Your task to perform on an android device: Search for the new Jordans on Nike.com Image 0: 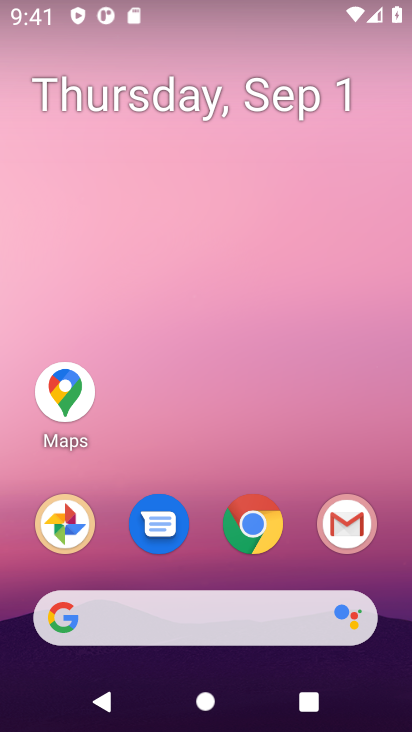
Step 0: drag from (388, 573) to (384, 84)
Your task to perform on an android device: Search for the new Jordans on Nike.com Image 1: 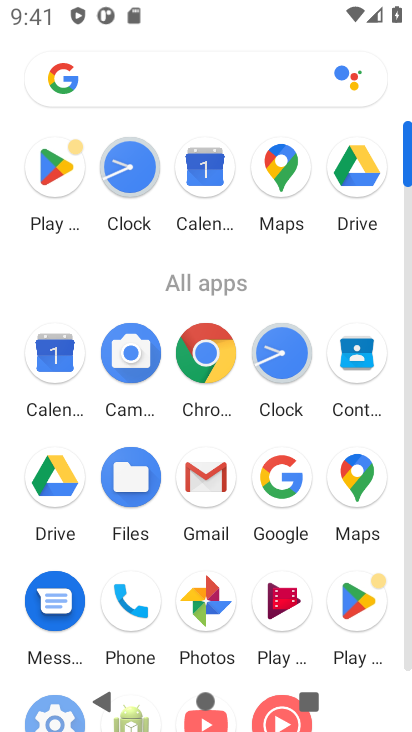
Step 1: click (213, 351)
Your task to perform on an android device: Search for the new Jordans on Nike.com Image 2: 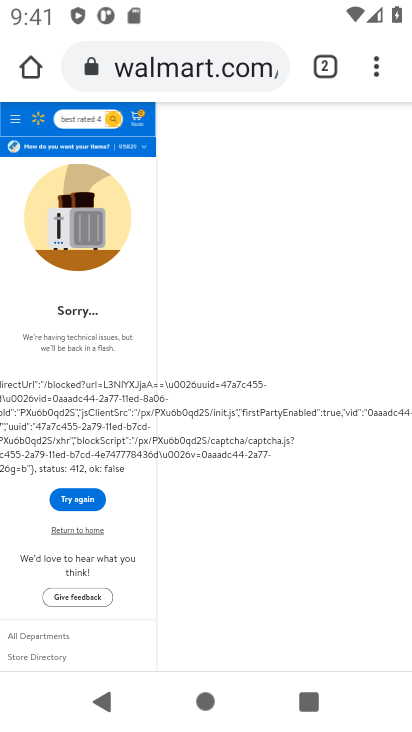
Step 2: click (196, 64)
Your task to perform on an android device: Search for the new Jordans on Nike.com Image 3: 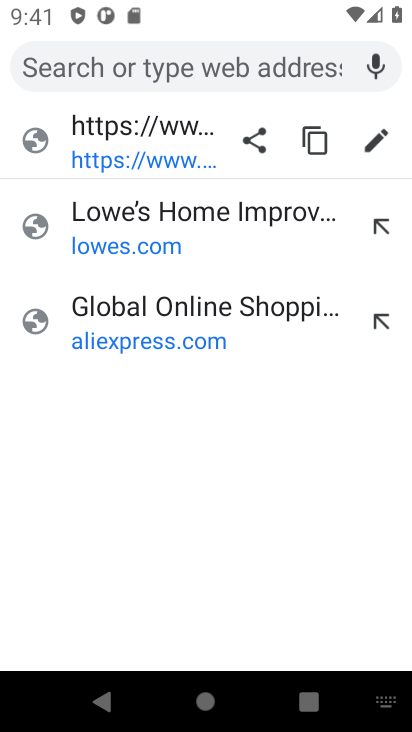
Step 3: type "nike.com"
Your task to perform on an android device: Search for the new Jordans on Nike.com Image 4: 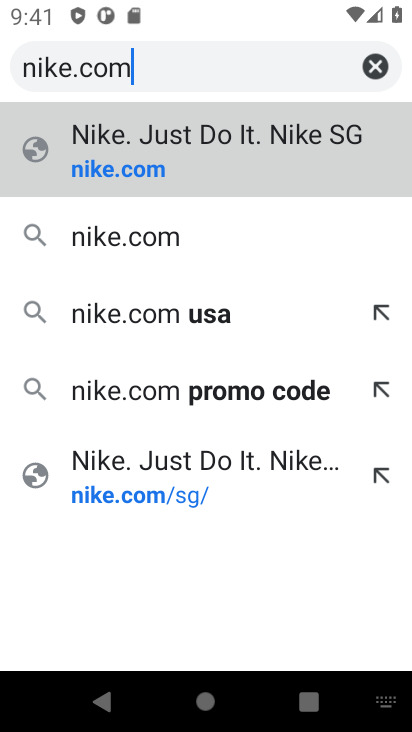
Step 4: press enter
Your task to perform on an android device: Search for the new Jordans on Nike.com Image 5: 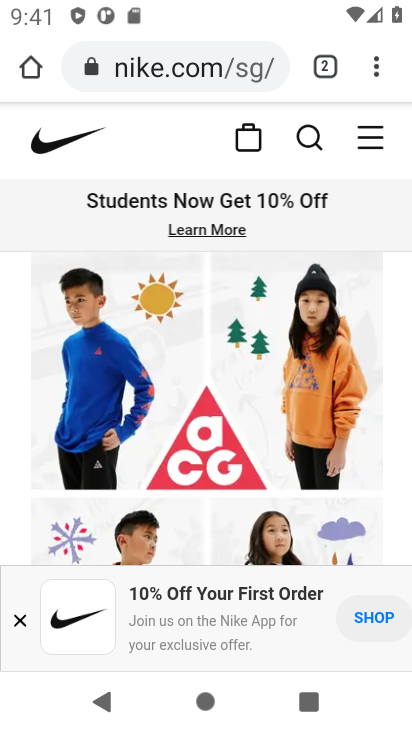
Step 5: click (312, 135)
Your task to perform on an android device: Search for the new Jordans on Nike.com Image 6: 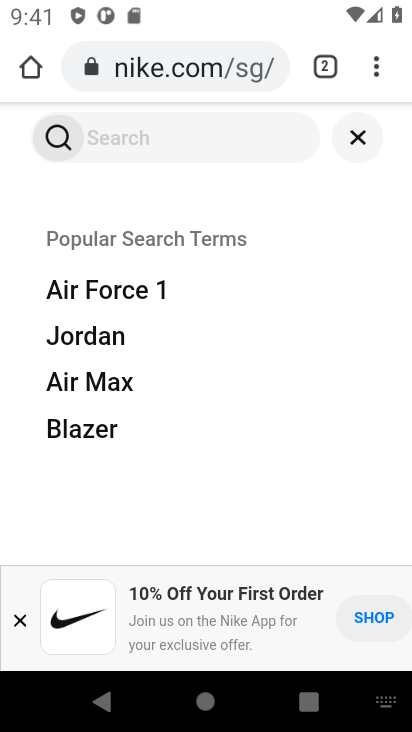
Step 6: press enter
Your task to perform on an android device: Search for the new Jordans on Nike.com Image 7: 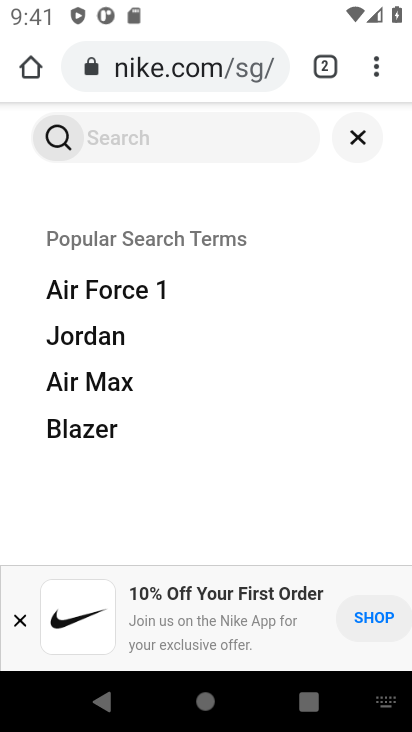
Step 7: type "new Jordans"
Your task to perform on an android device: Search for the new Jordans on Nike.com Image 8: 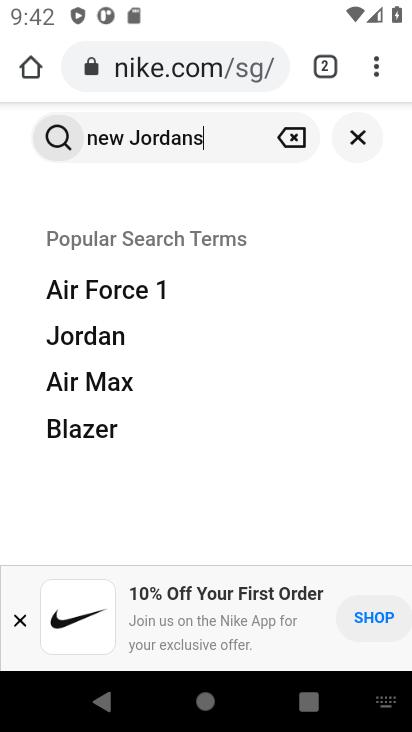
Step 8: click (83, 331)
Your task to perform on an android device: Search for the new Jordans on Nike.com Image 9: 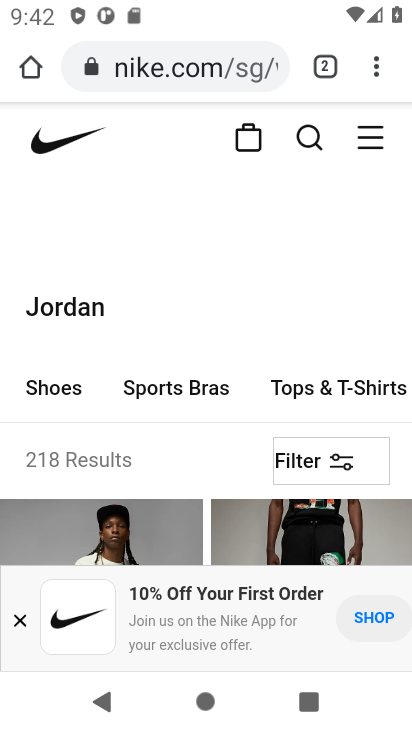
Step 9: task complete